Your task to perform on an android device: Open network settings Image 0: 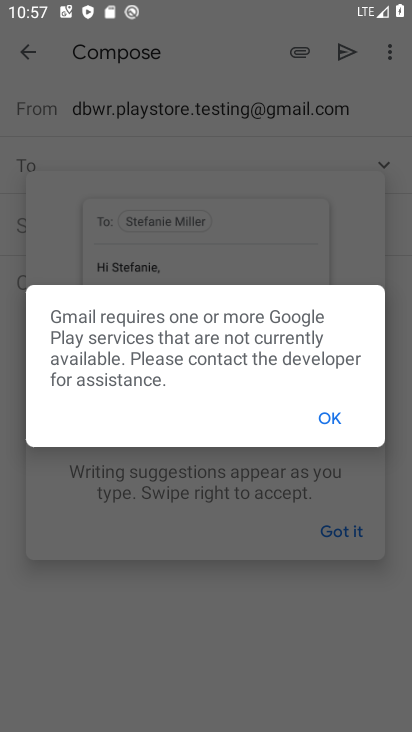
Step 0: press home button
Your task to perform on an android device: Open network settings Image 1: 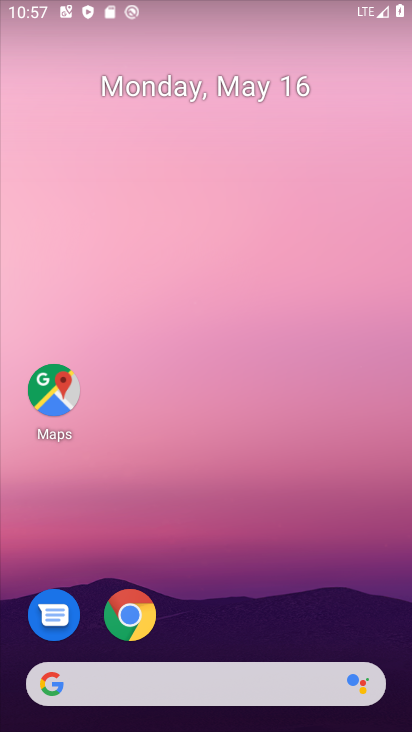
Step 1: drag from (190, 634) to (234, 278)
Your task to perform on an android device: Open network settings Image 2: 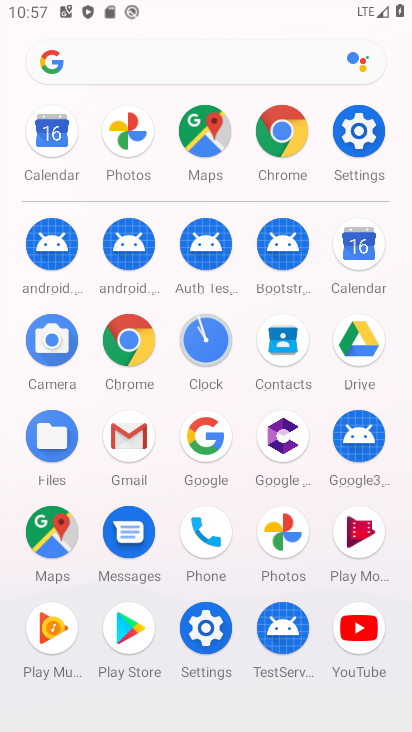
Step 2: click (399, 126)
Your task to perform on an android device: Open network settings Image 3: 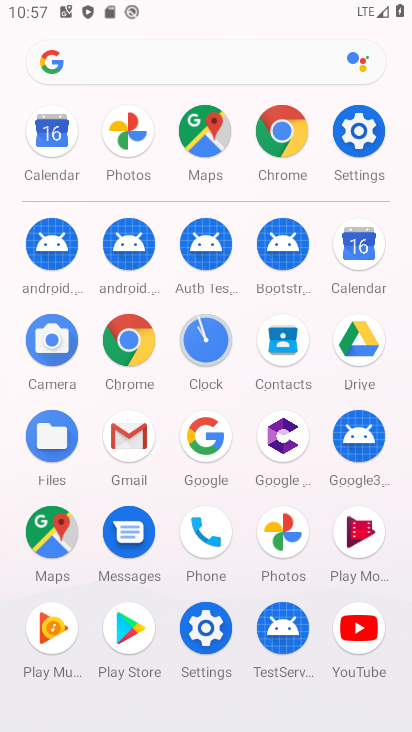
Step 3: click (356, 151)
Your task to perform on an android device: Open network settings Image 4: 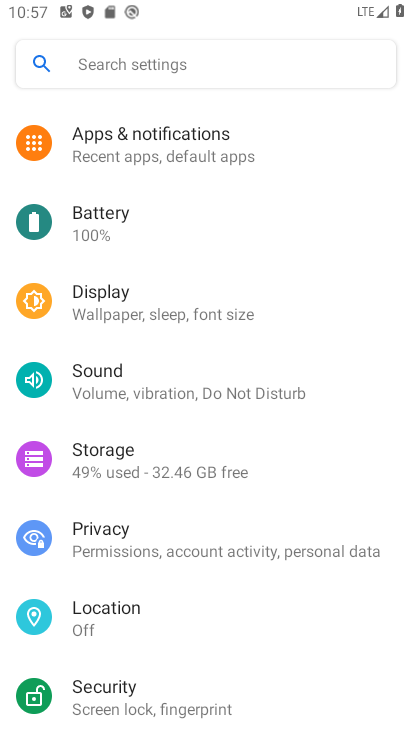
Step 4: drag from (213, 233) to (176, 537)
Your task to perform on an android device: Open network settings Image 5: 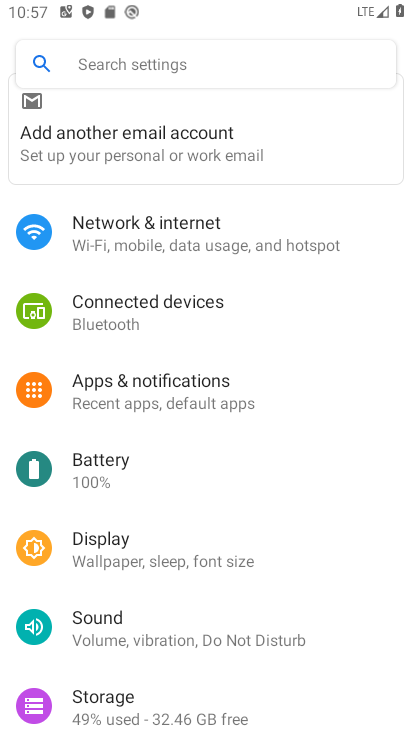
Step 5: click (230, 229)
Your task to perform on an android device: Open network settings Image 6: 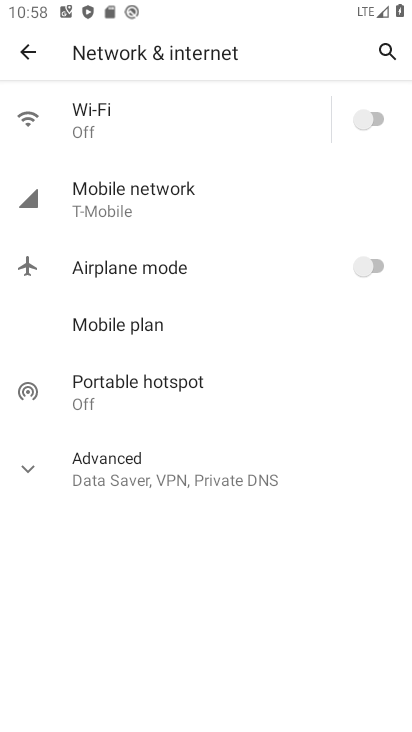
Step 6: click (192, 205)
Your task to perform on an android device: Open network settings Image 7: 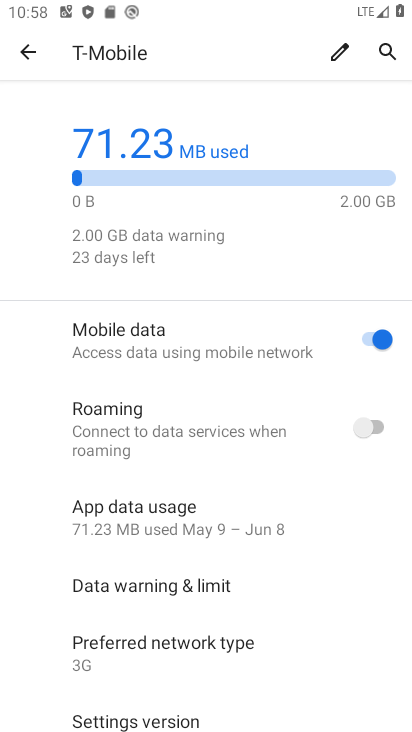
Step 7: task complete